Your task to perform on an android device: Open calendar and show me the second week of next month Image 0: 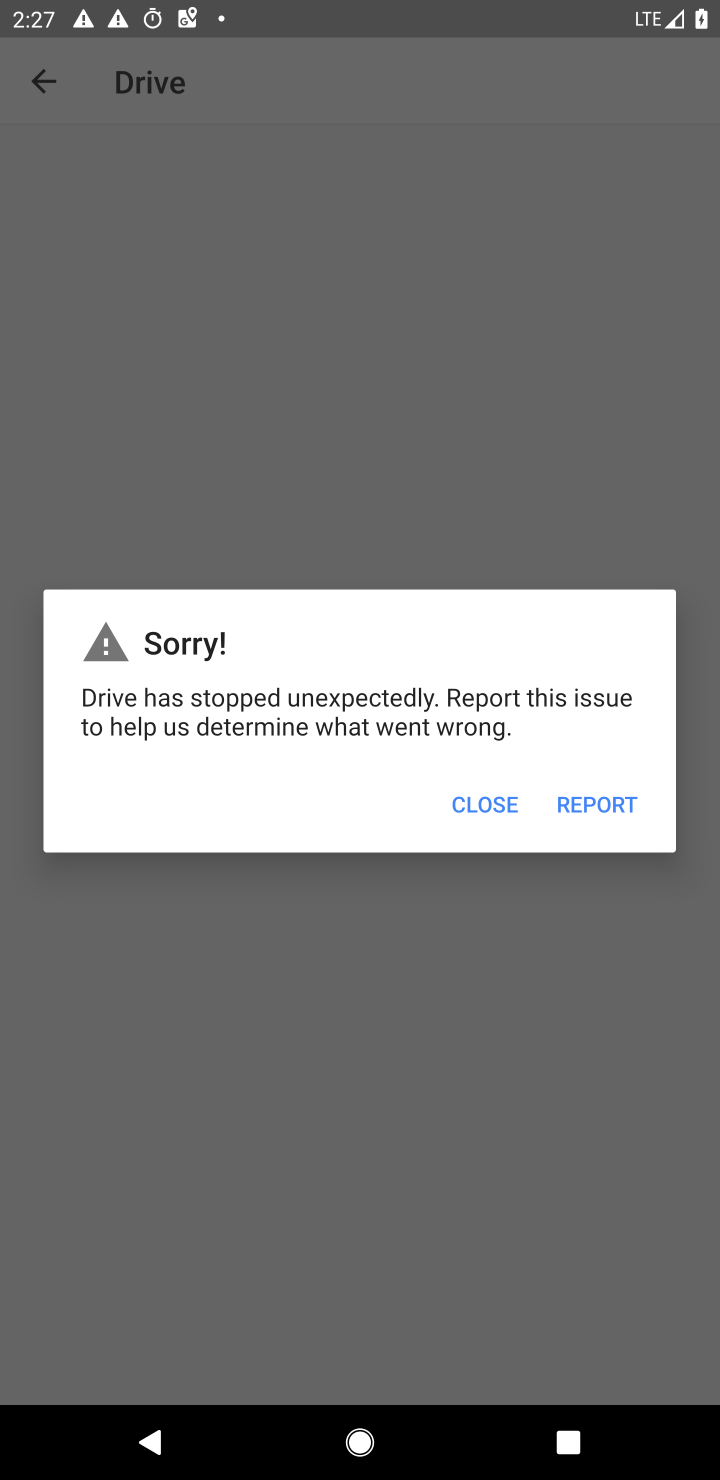
Step 0: press home button
Your task to perform on an android device: Open calendar and show me the second week of next month Image 1: 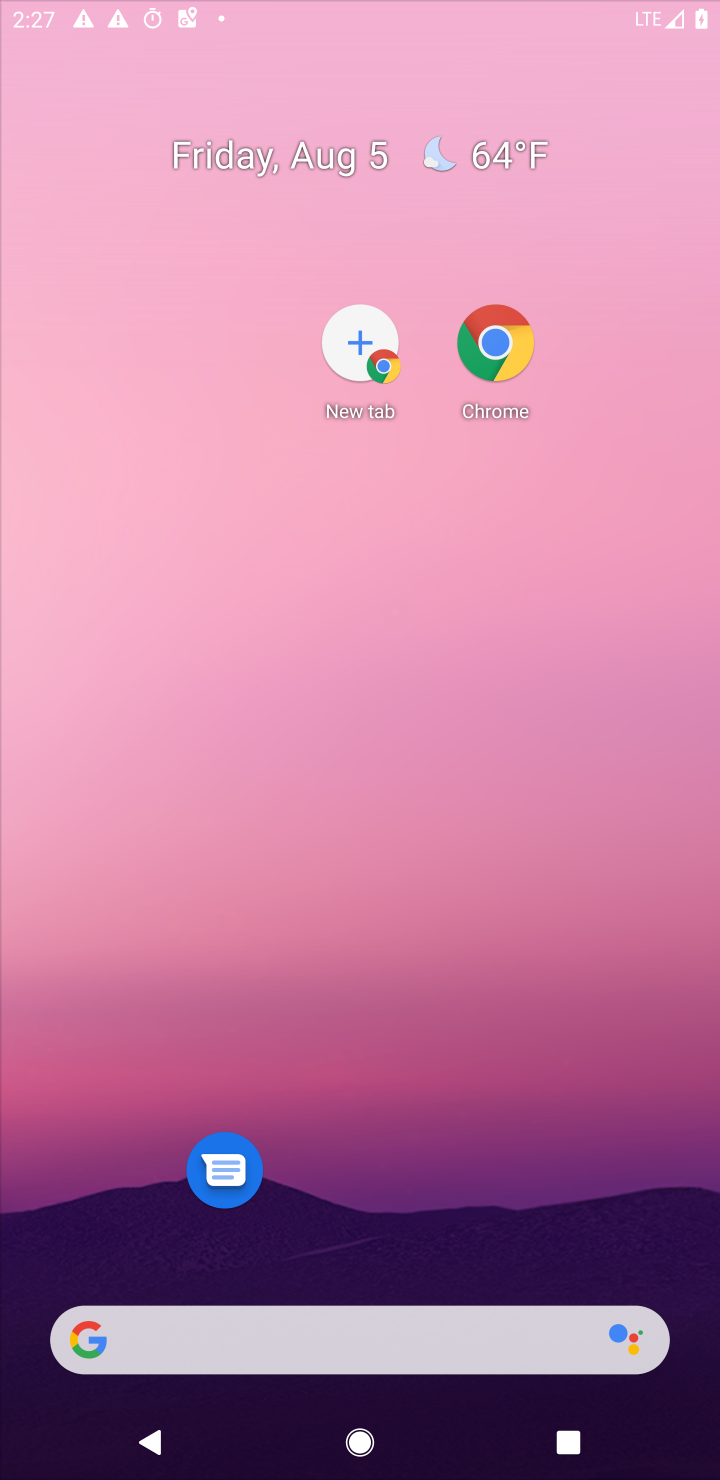
Step 1: drag from (361, 1004) to (368, 0)
Your task to perform on an android device: Open calendar and show me the second week of next month Image 2: 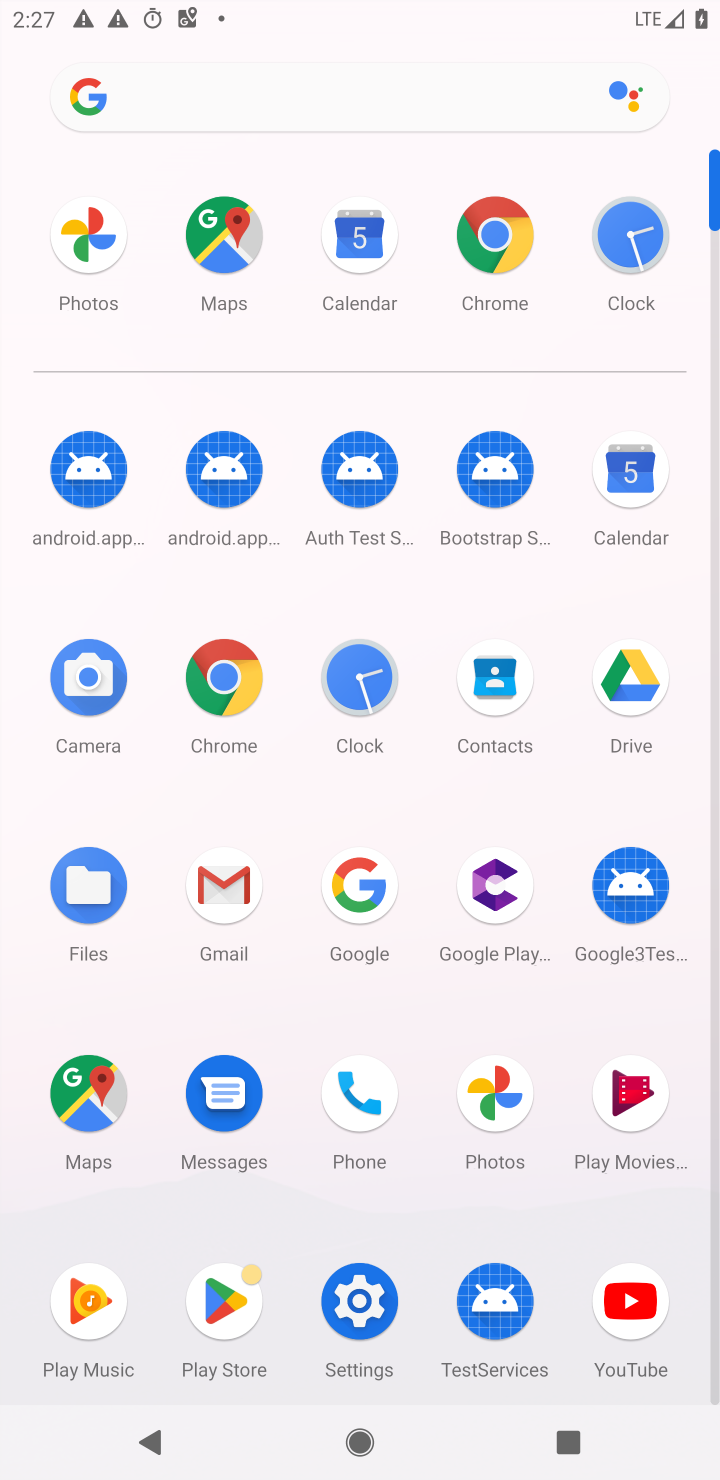
Step 2: click (638, 487)
Your task to perform on an android device: Open calendar and show me the second week of next month Image 3: 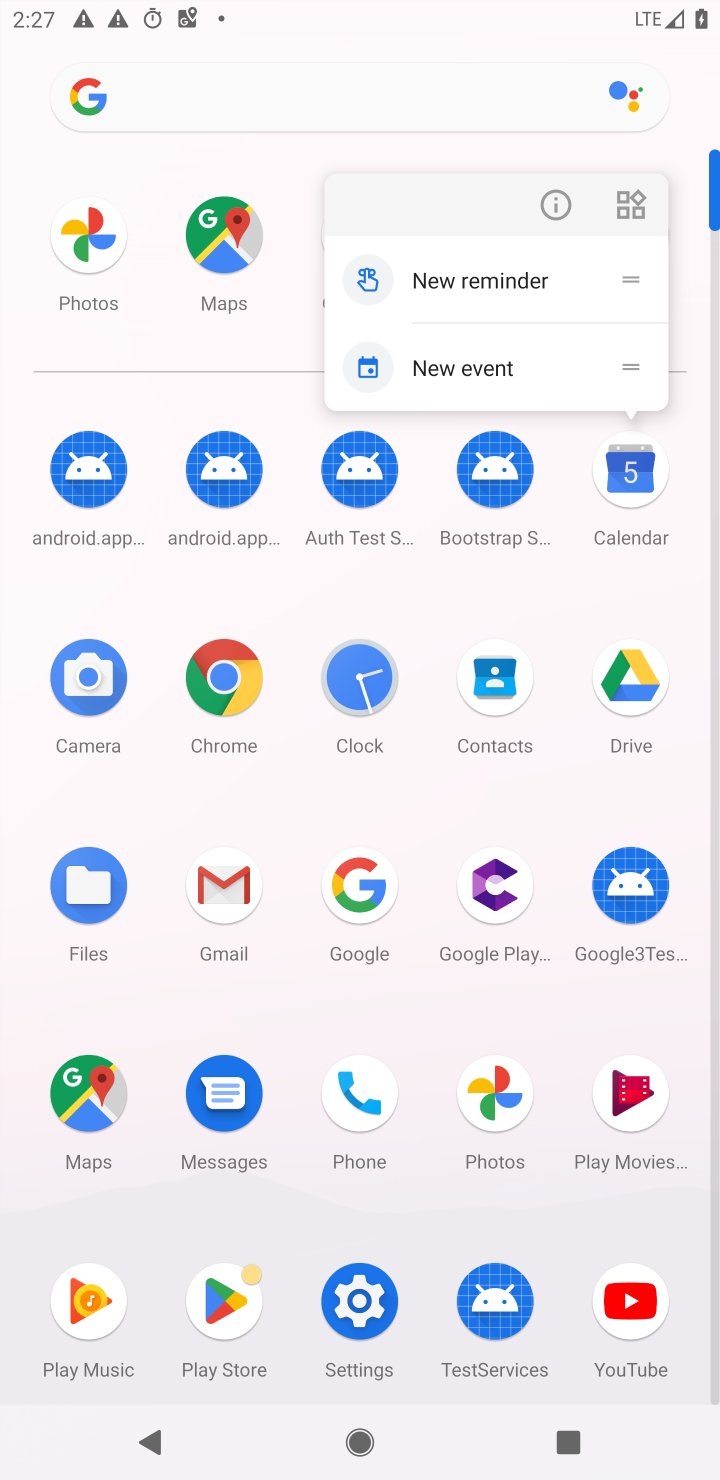
Step 3: click (615, 504)
Your task to perform on an android device: Open calendar and show me the second week of next month Image 4: 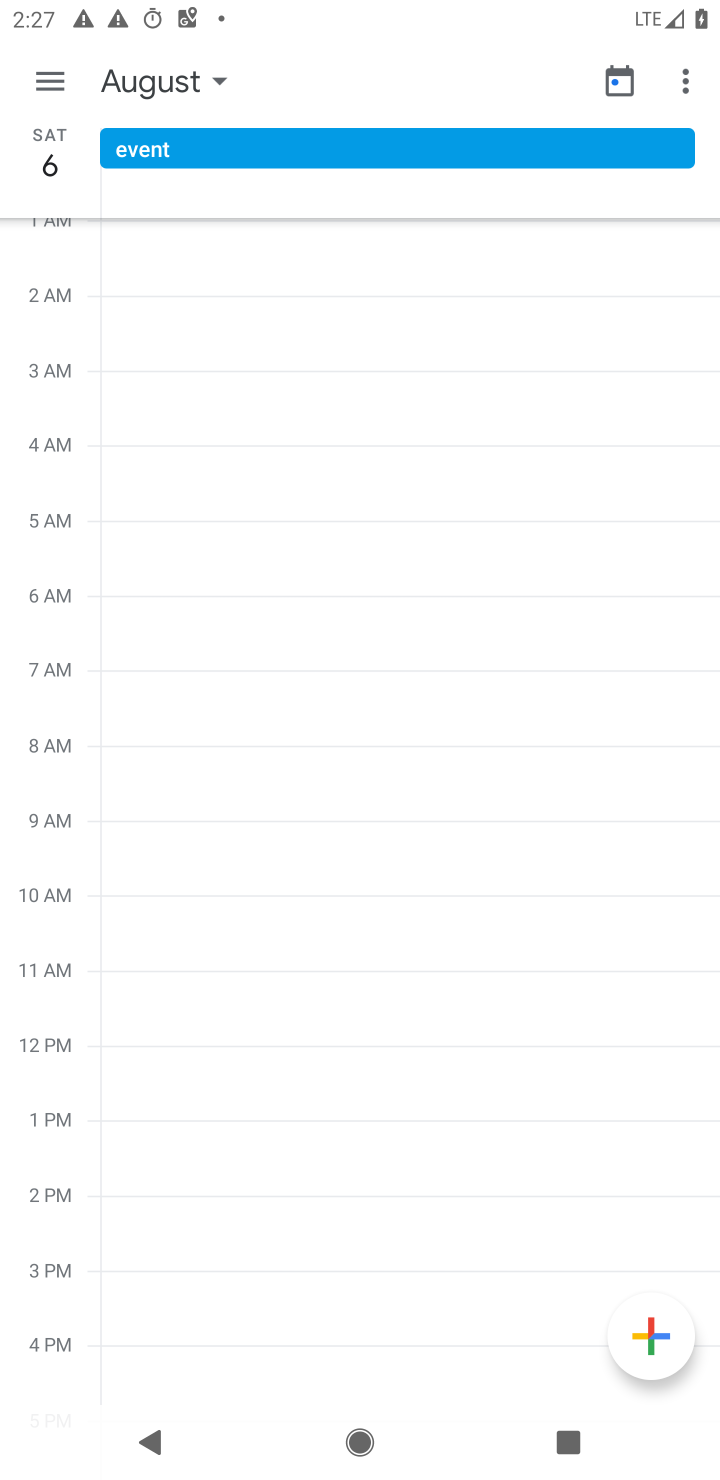
Step 4: click (182, 87)
Your task to perform on an android device: Open calendar and show me the second week of next month Image 5: 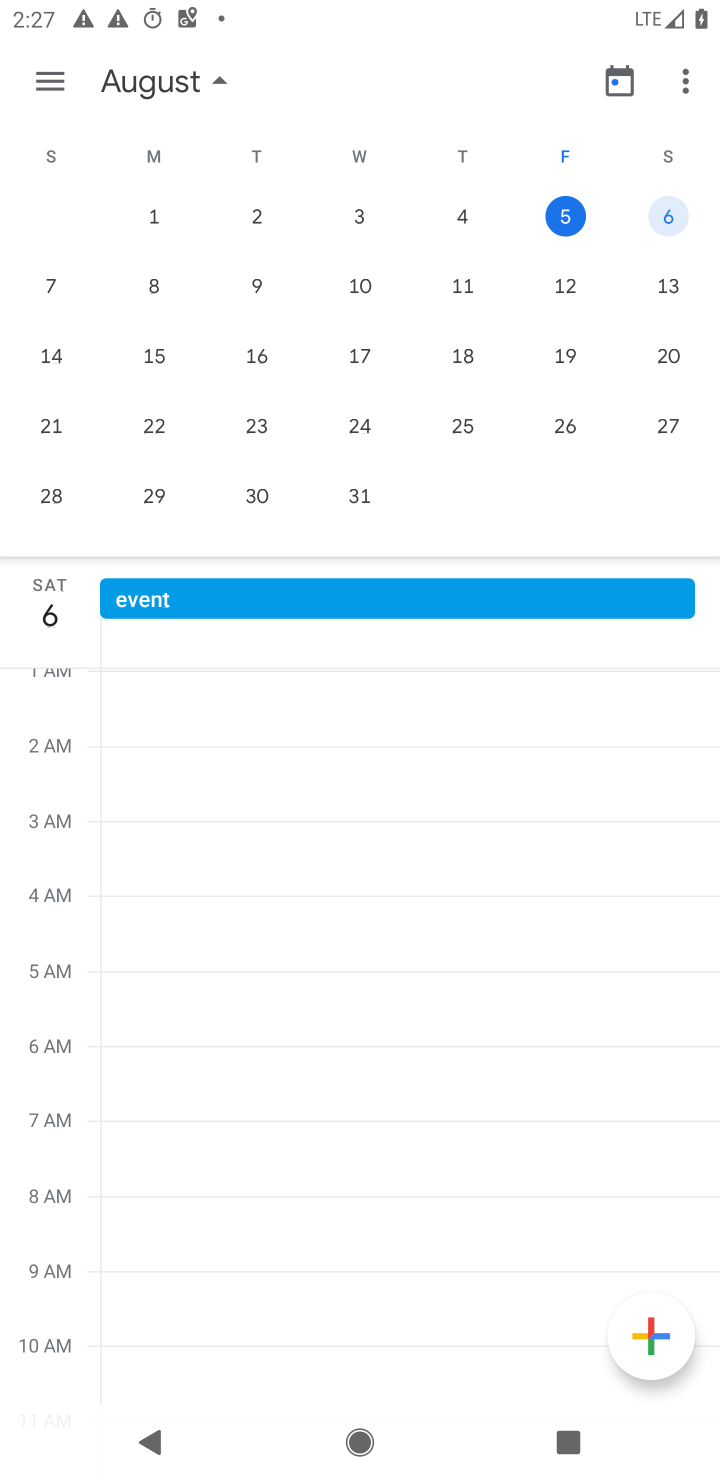
Step 5: drag from (506, 336) to (6, 394)
Your task to perform on an android device: Open calendar and show me the second week of next month Image 6: 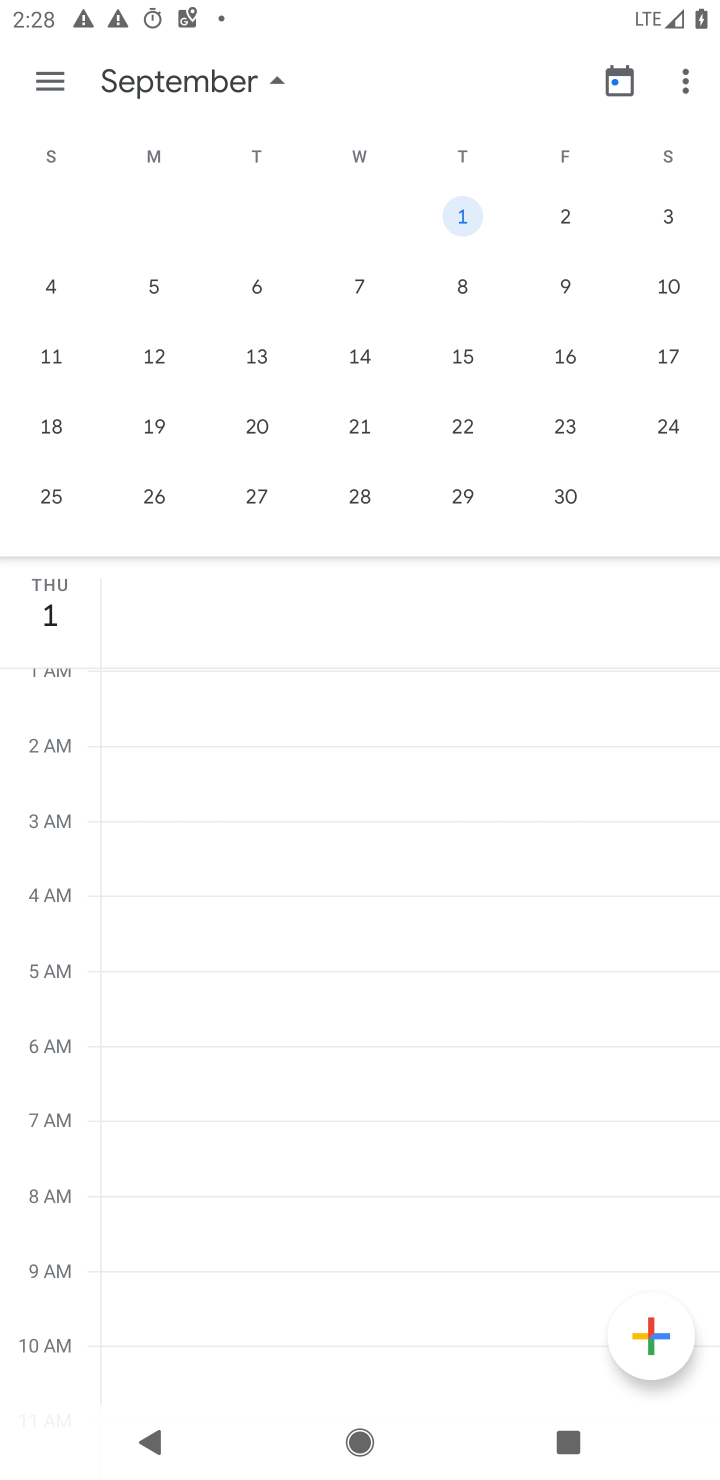
Step 6: click (61, 76)
Your task to perform on an android device: Open calendar and show me the second week of next month Image 7: 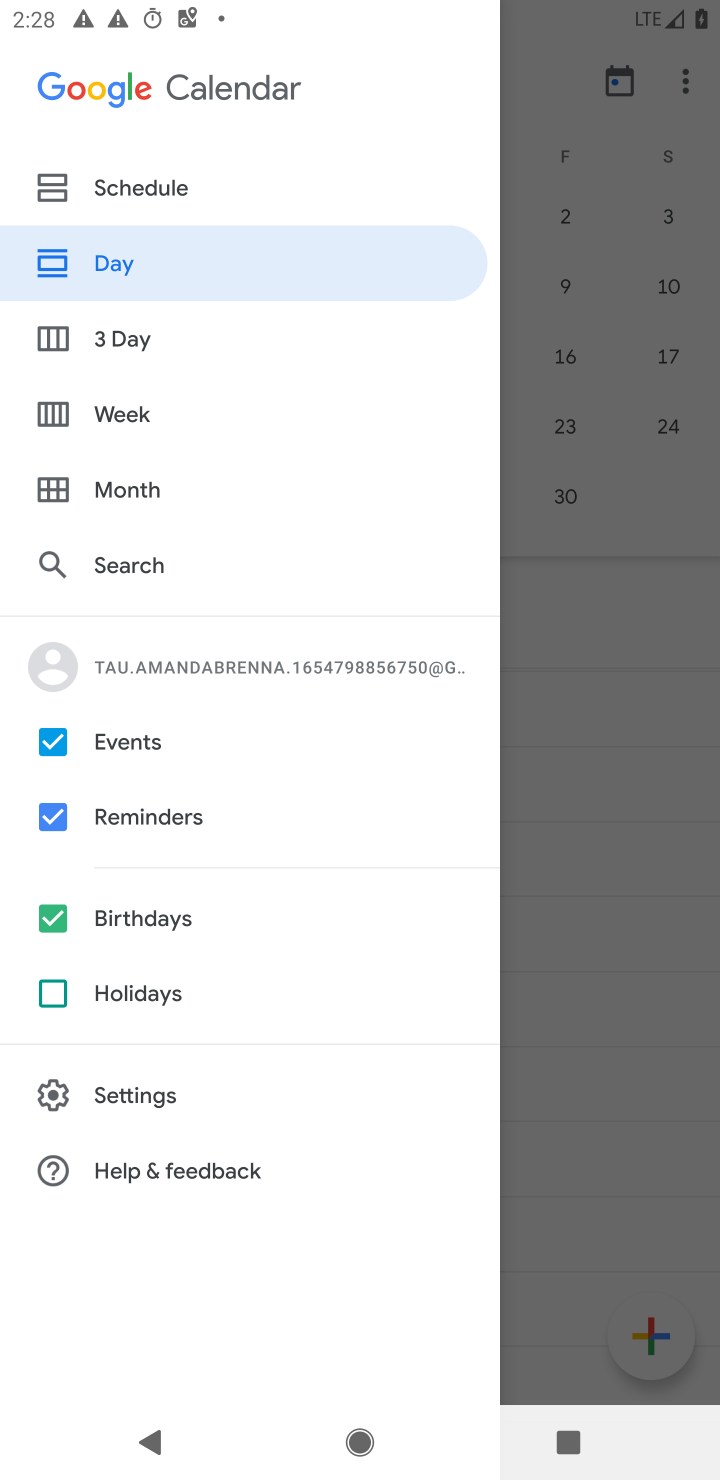
Step 7: click (158, 424)
Your task to perform on an android device: Open calendar and show me the second week of next month Image 8: 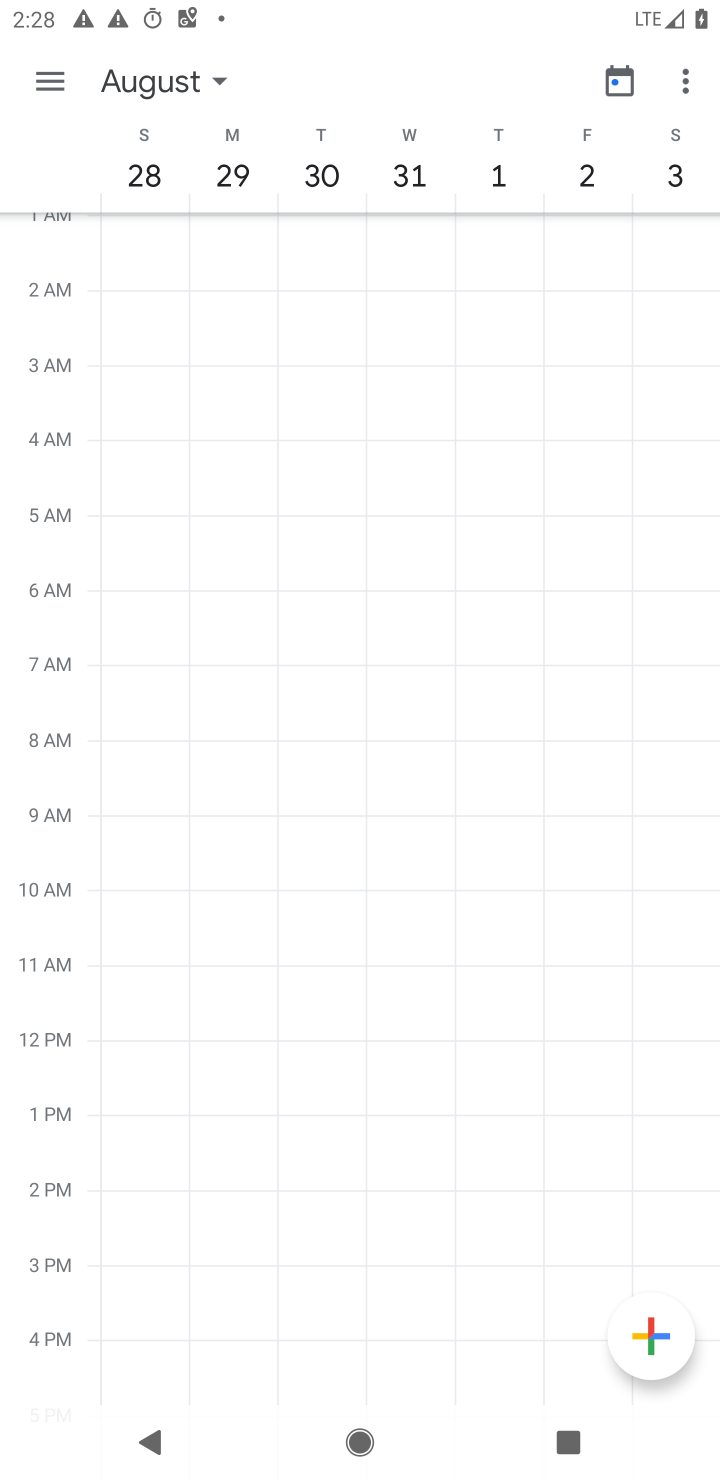
Step 8: click (216, 85)
Your task to perform on an android device: Open calendar and show me the second week of next month Image 9: 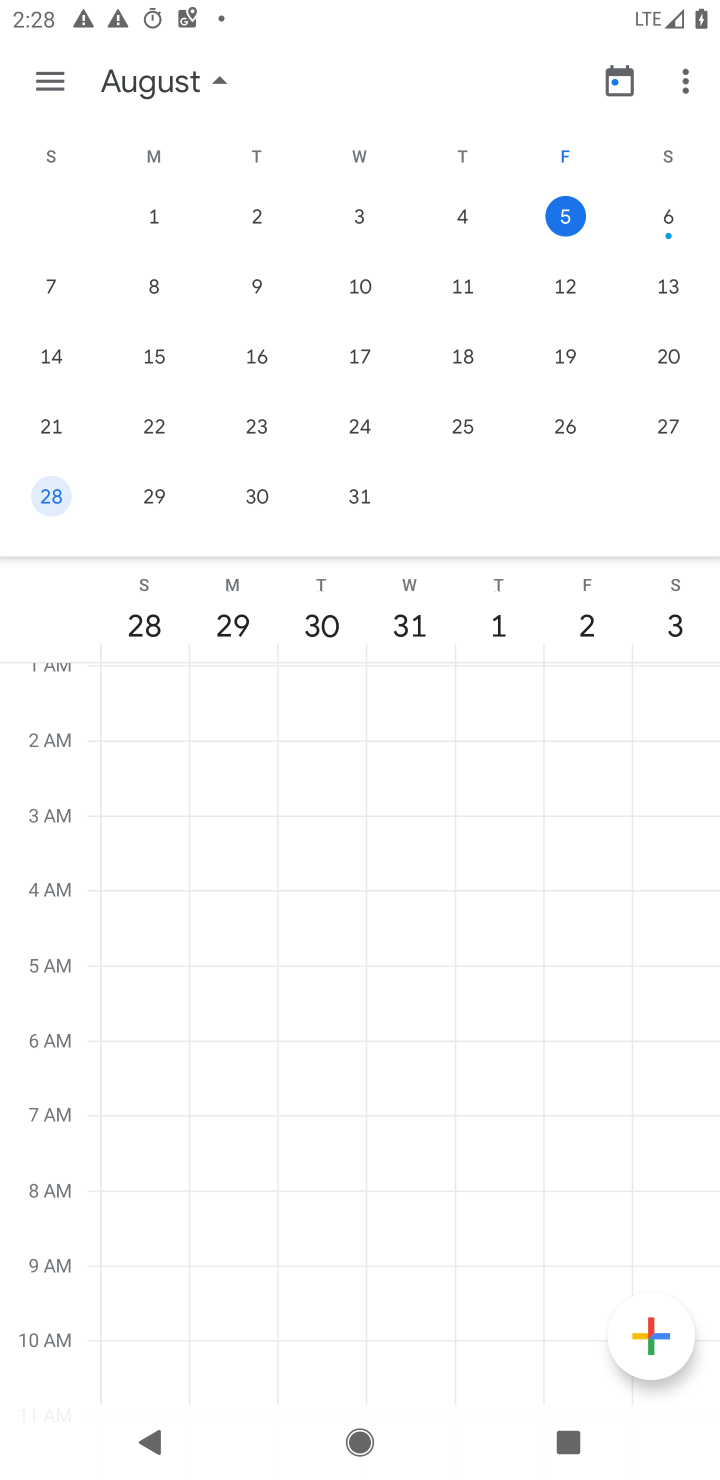
Step 9: drag from (531, 406) to (0, 396)
Your task to perform on an android device: Open calendar and show me the second week of next month Image 10: 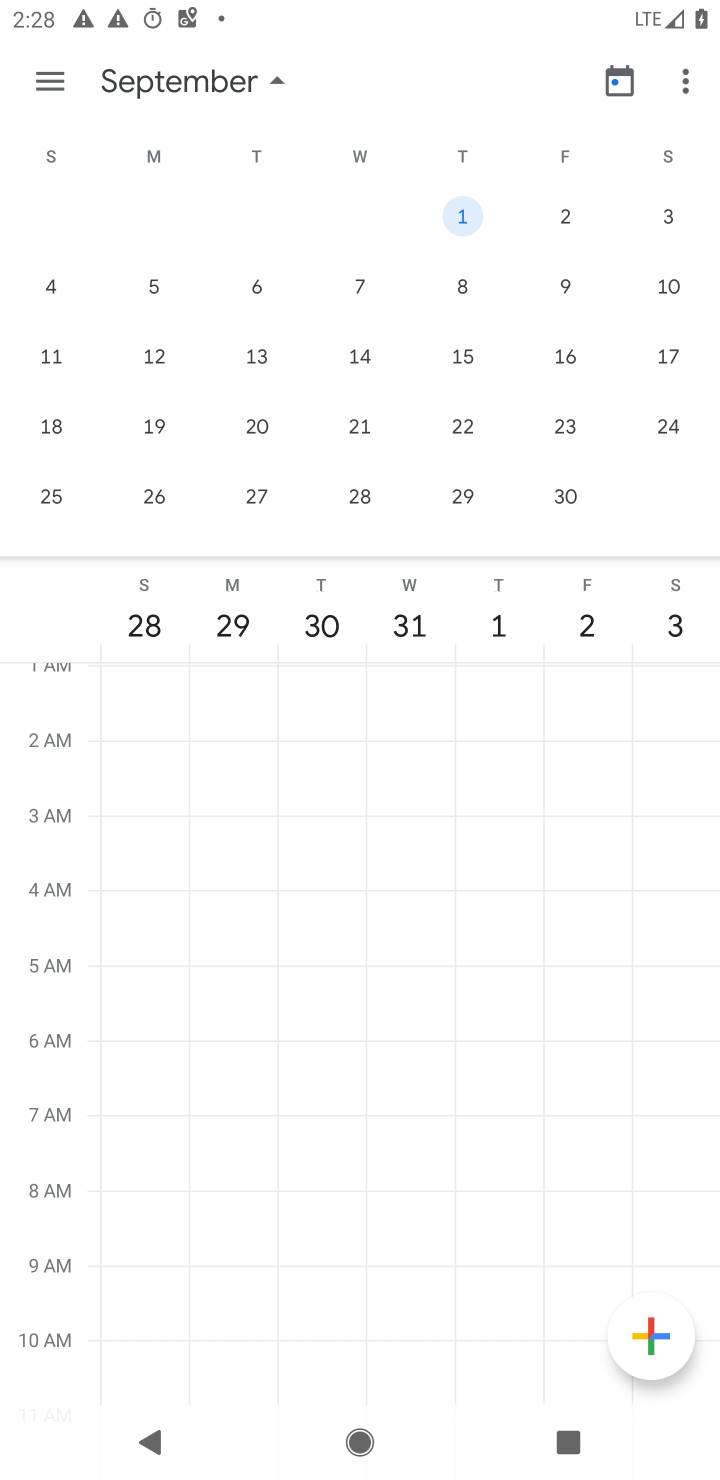
Step 10: click (59, 344)
Your task to perform on an android device: Open calendar and show me the second week of next month Image 11: 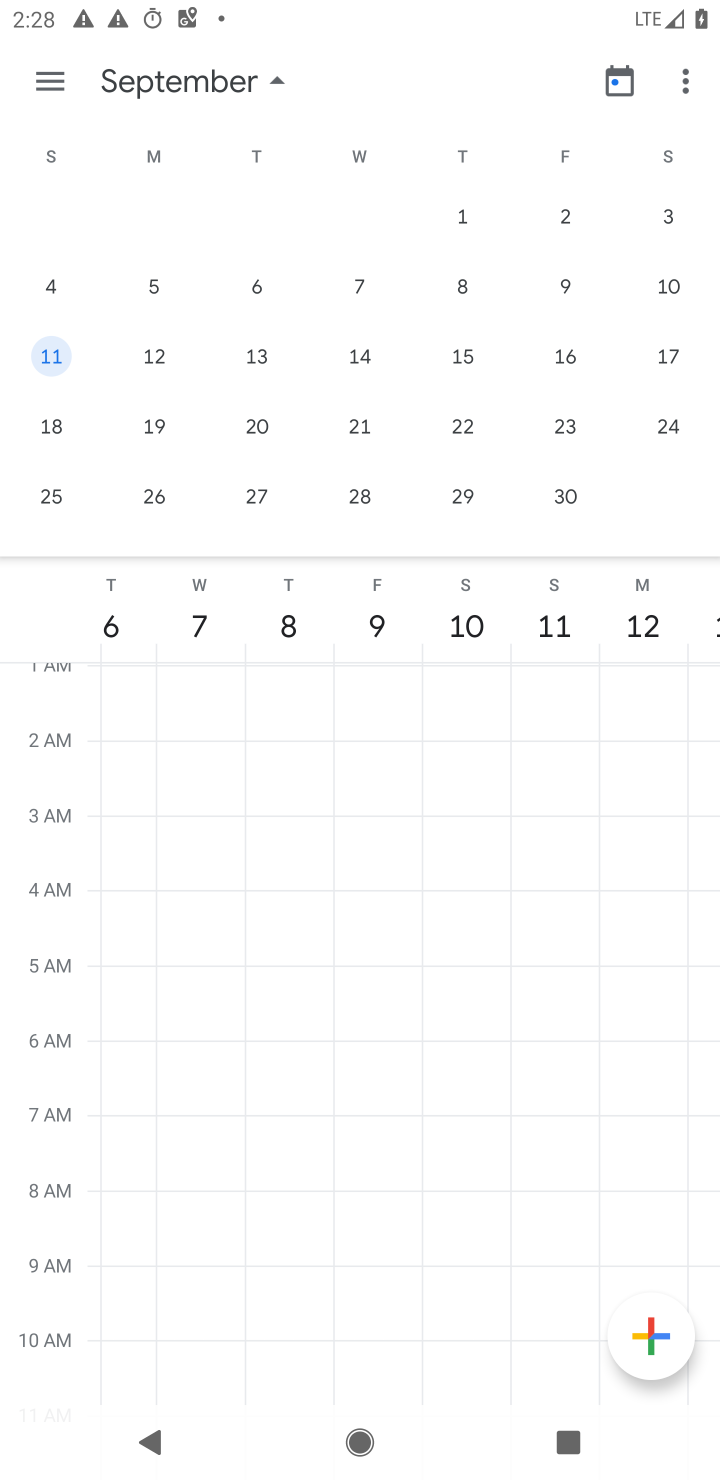
Step 11: click (260, 68)
Your task to perform on an android device: Open calendar and show me the second week of next month Image 12: 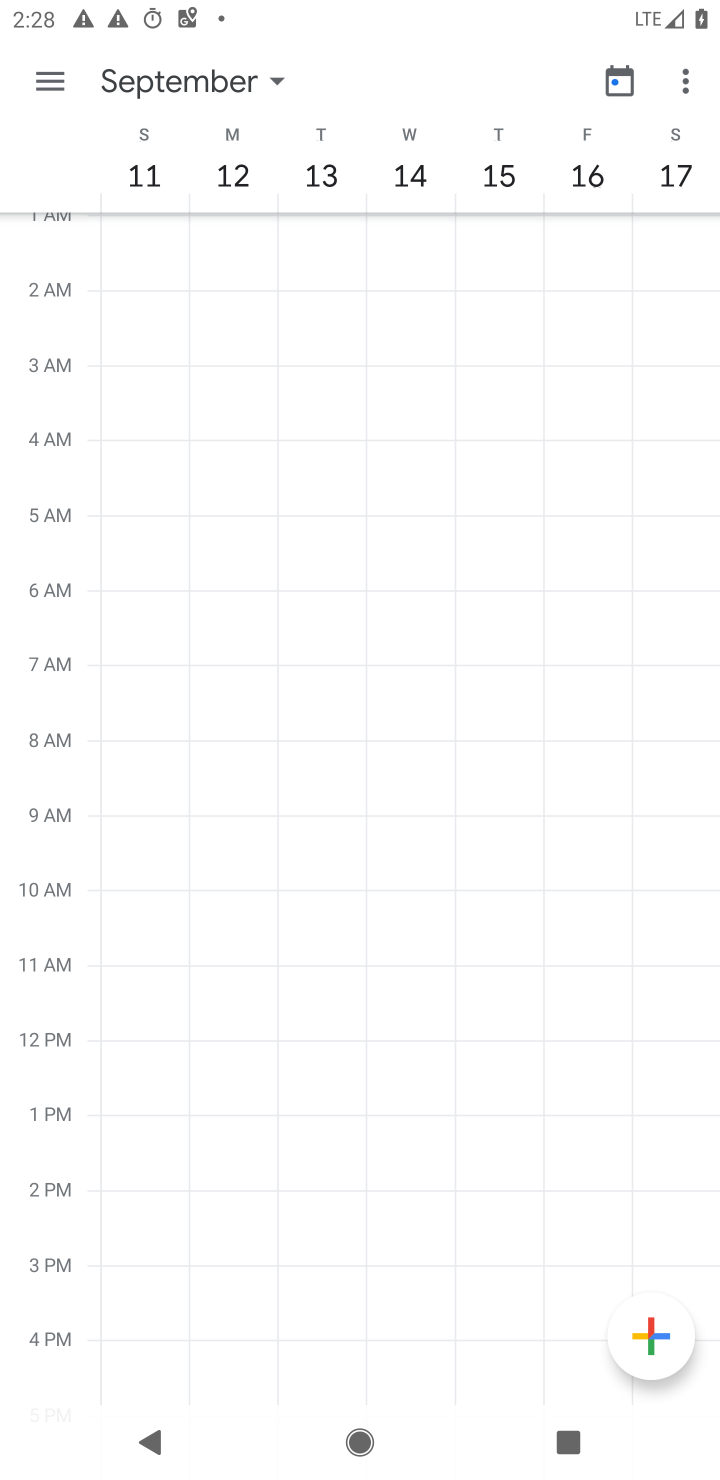
Step 12: task complete